Your task to perform on an android device: open a new tab in the chrome app Image 0: 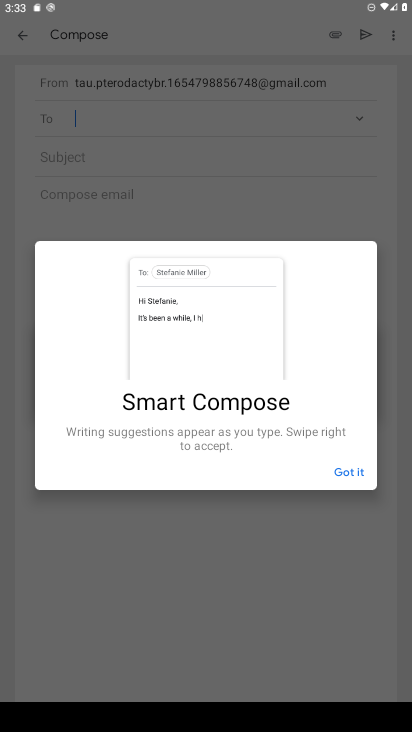
Step 0: press home button
Your task to perform on an android device: open a new tab in the chrome app Image 1: 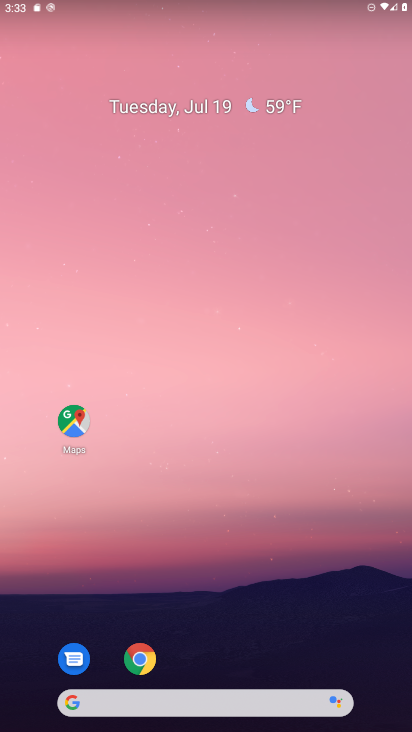
Step 1: click (141, 662)
Your task to perform on an android device: open a new tab in the chrome app Image 2: 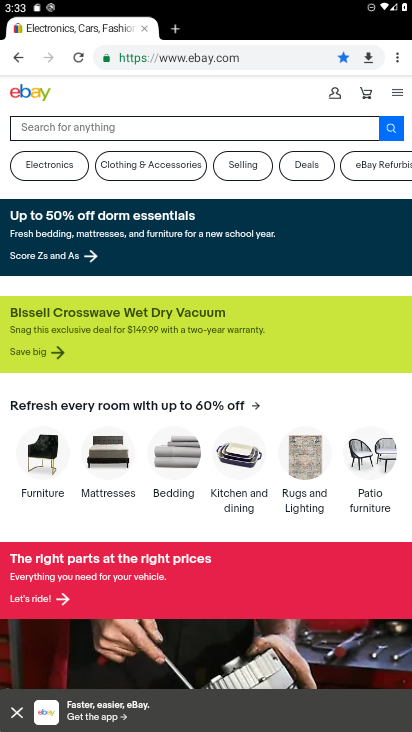
Step 2: click (398, 58)
Your task to perform on an android device: open a new tab in the chrome app Image 3: 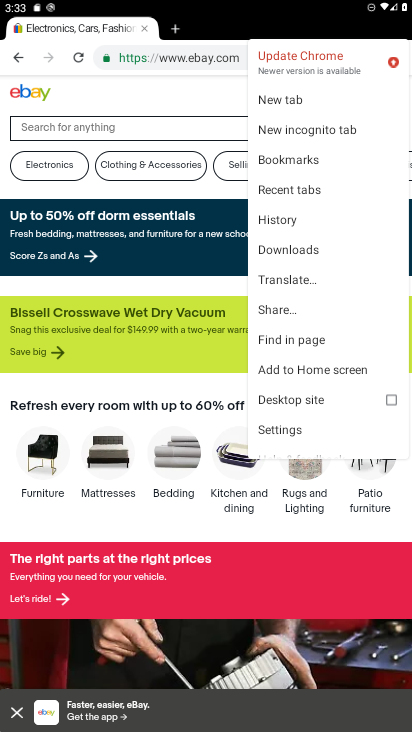
Step 3: click (296, 100)
Your task to perform on an android device: open a new tab in the chrome app Image 4: 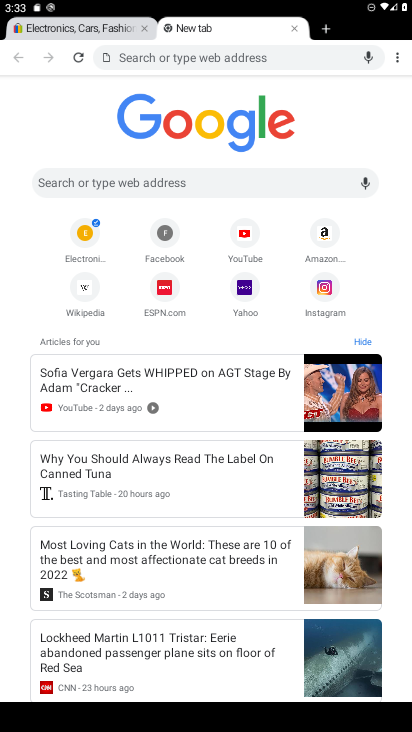
Step 4: task complete